Your task to perform on an android device: Open Amazon Image 0: 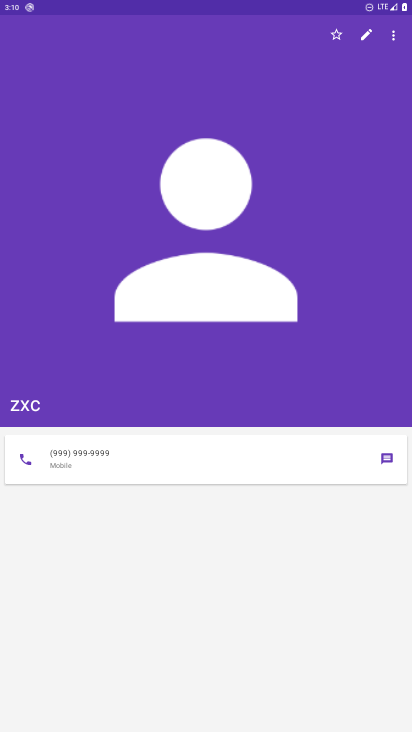
Step 0: press home button
Your task to perform on an android device: Open Amazon Image 1: 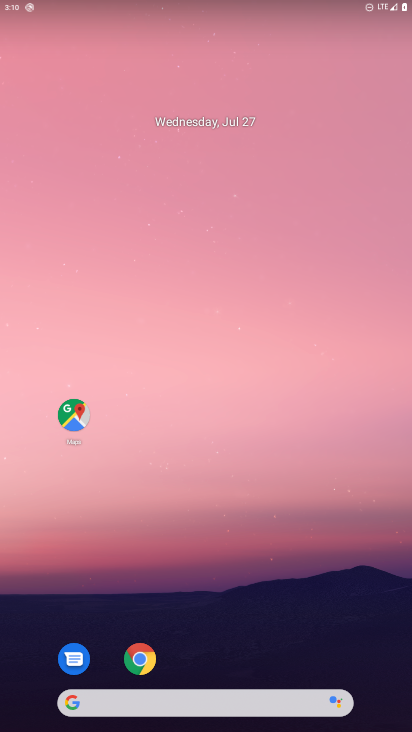
Step 1: drag from (287, 616) to (279, 197)
Your task to perform on an android device: Open Amazon Image 2: 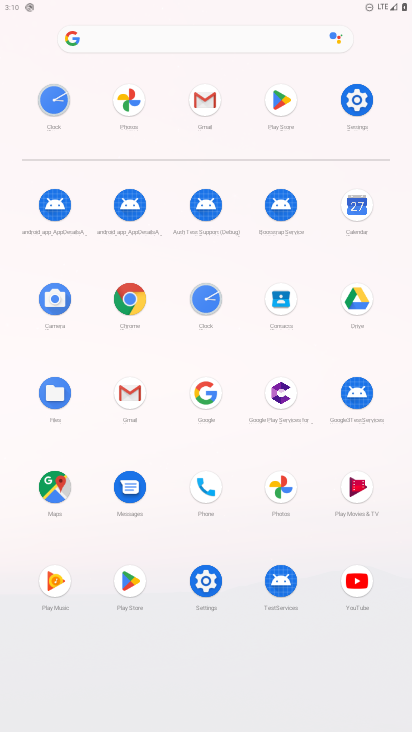
Step 2: click (133, 313)
Your task to perform on an android device: Open Amazon Image 3: 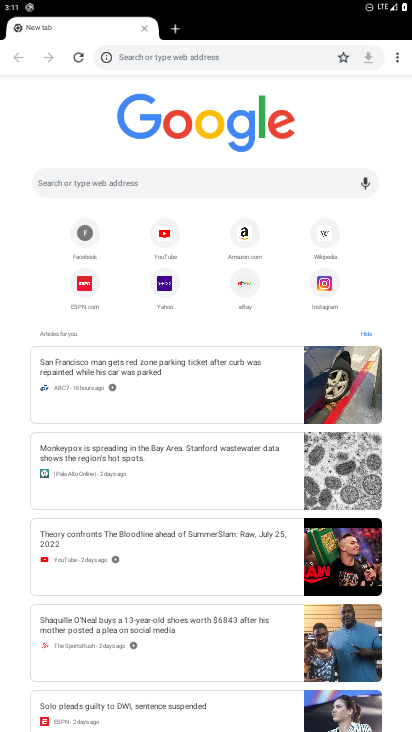
Step 3: click (205, 54)
Your task to perform on an android device: Open Amazon Image 4: 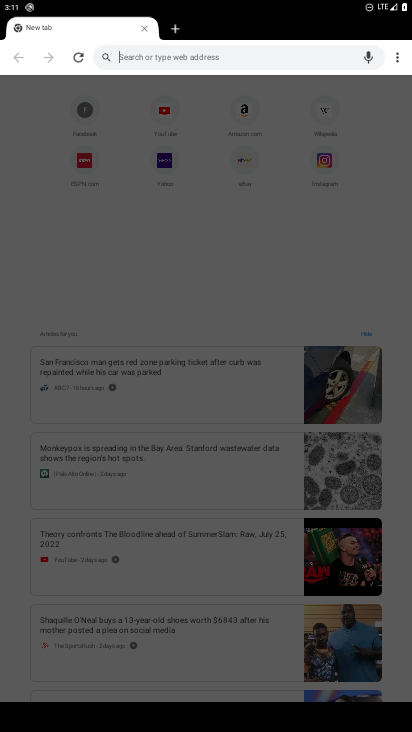
Step 4: type "amazon"
Your task to perform on an android device: Open Amazon Image 5: 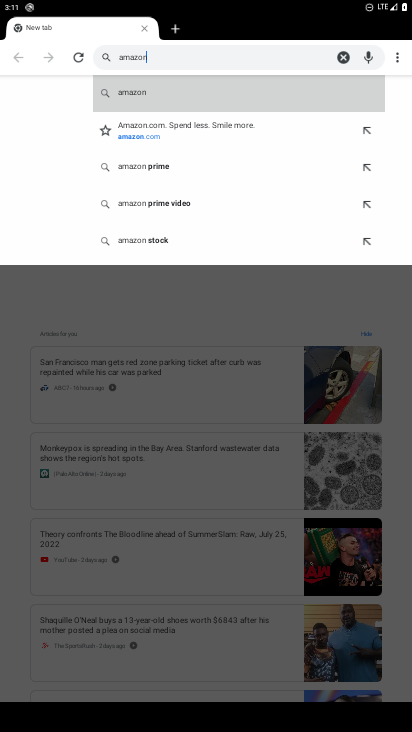
Step 5: click (221, 96)
Your task to perform on an android device: Open Amazon Image 6: 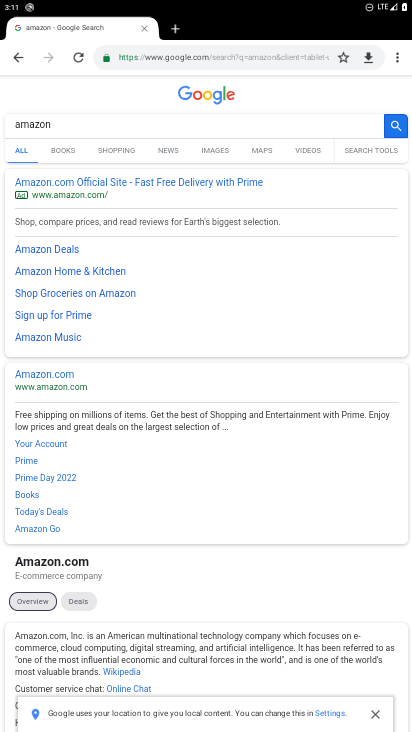
Step 6: click (216, 182)
Your task to perform on an android device: Open Amazon Image 7: 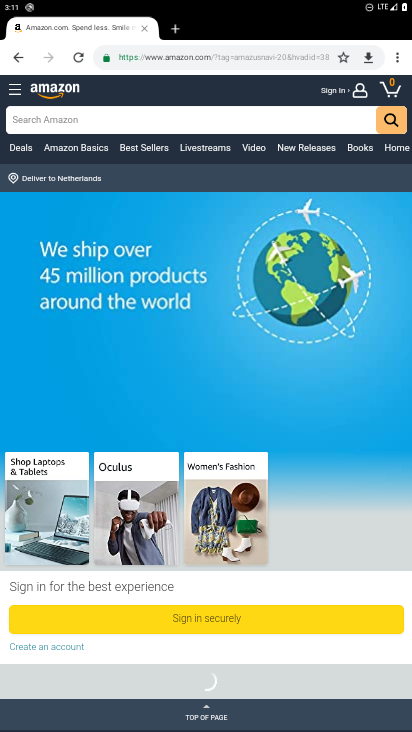
Step 7: click (37, 183)
Your task to perform on an android device: Open Amazon Image 8: 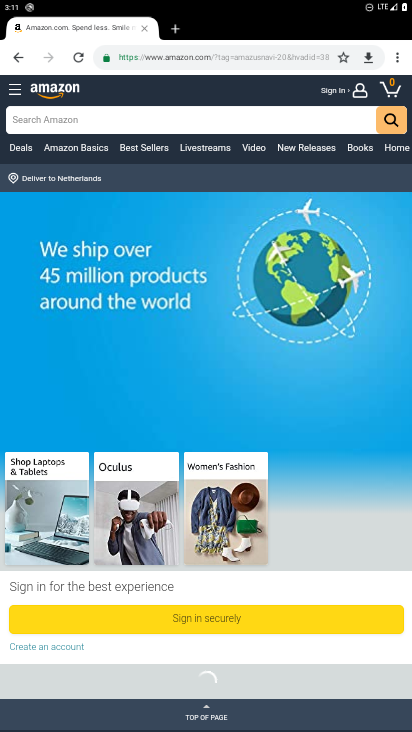
Step 8: click (27, 178)
Your task to perform on an android device: Open Amazon Image 9: 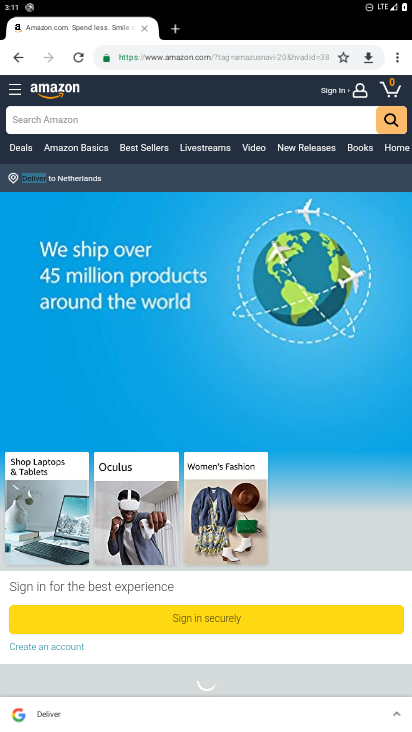
Step 9: click (10, 180)
Your task to perform on an android device: Open Amazon Image 10: 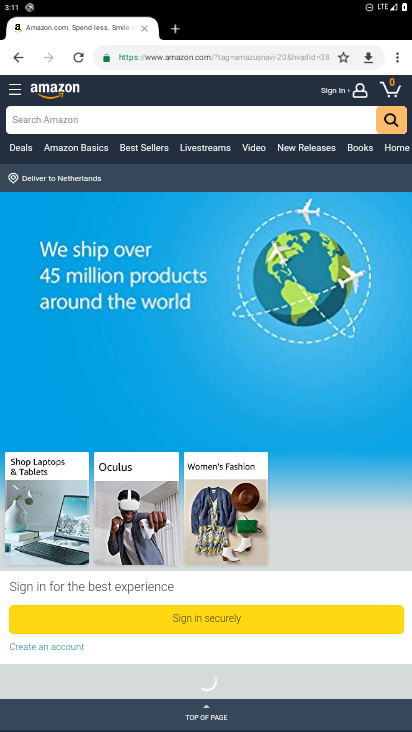
Step 10: click (75, 175)
Your task to perform on an android device: Open Amazon Image 11: 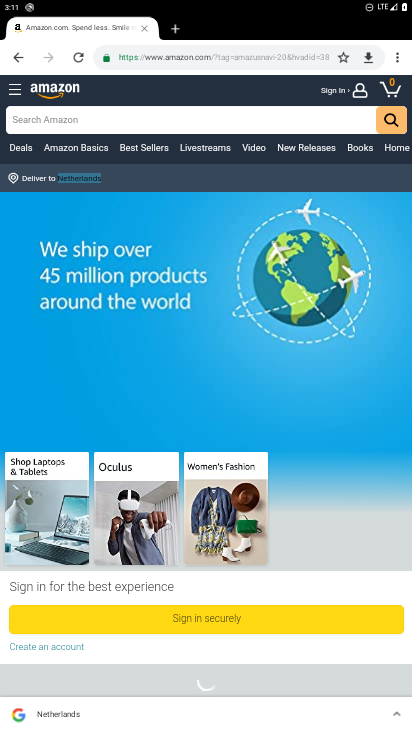
Step 11: click (163, 180)
Your task to perform on an android device: Open Amazon Image 12: 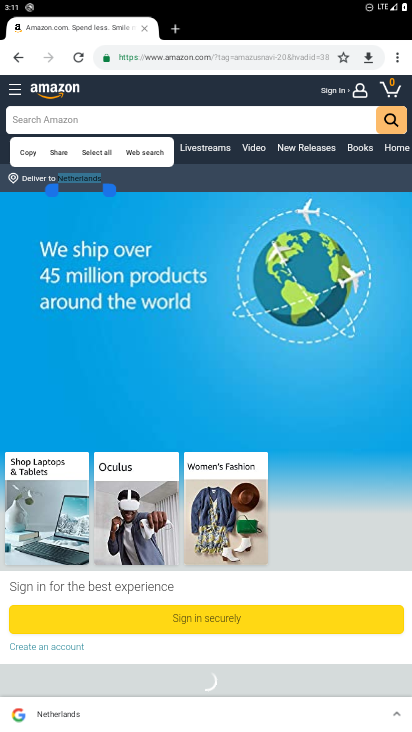
Step 12: click (159, 194)
Your task to perform on an android device: Open Amazon Image 13: 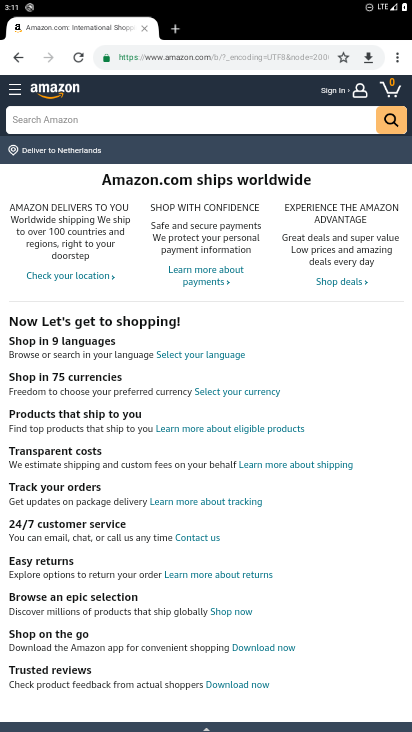
Step 13: click (45, 86)
Your task to perform on an android device: Open Amazon Image 14: 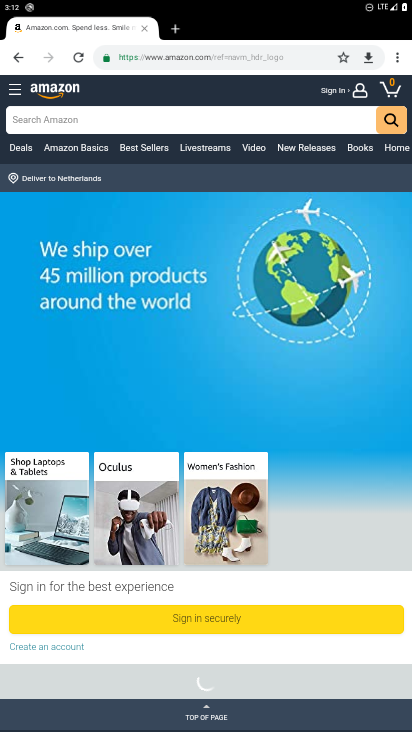
Step 14: click (15, 175)
Your task to perform on an android device: Open Amazon Image 15: 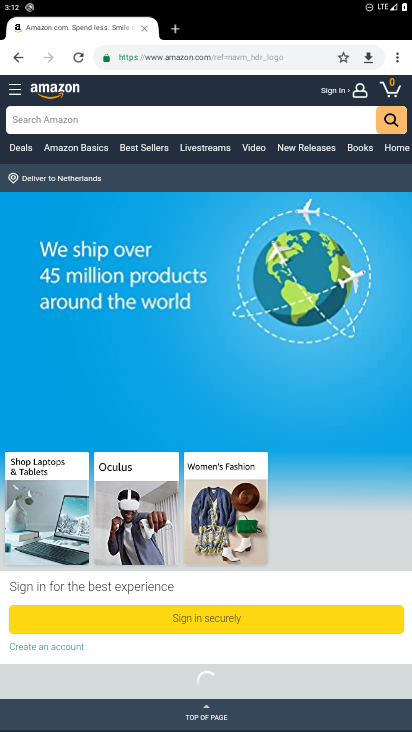
Step 15: drag from (141, 478) to (265, 148)
Your task to perform on an android device: Open Amazon Image 16: 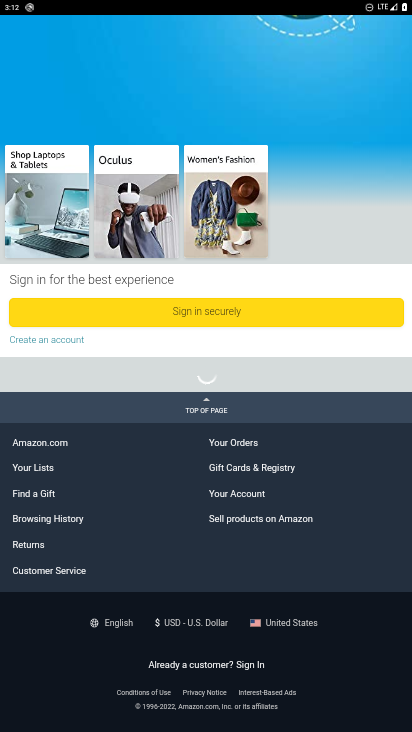
Step 16: drag from (250, 374) to (218, 601)
Your task to perform on an android device: Open Amazon Image 17: 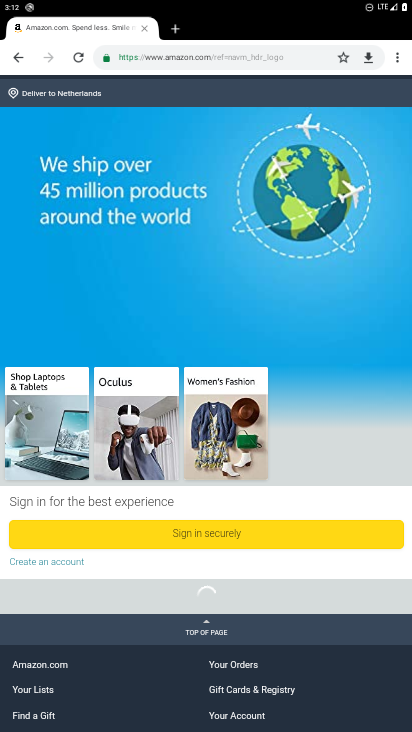
Step 17: click (34, 435)
Your task to perform on an android device: Open Amazon Image 18: 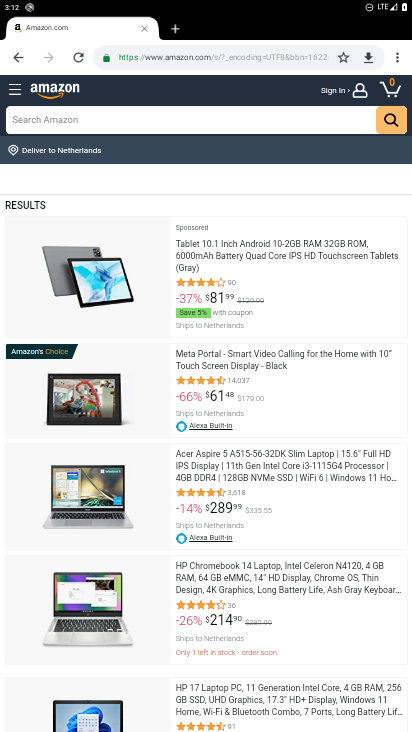
Step 18: click (62, 146)
Your task to perform on an android device: Open Amazon Image 19: 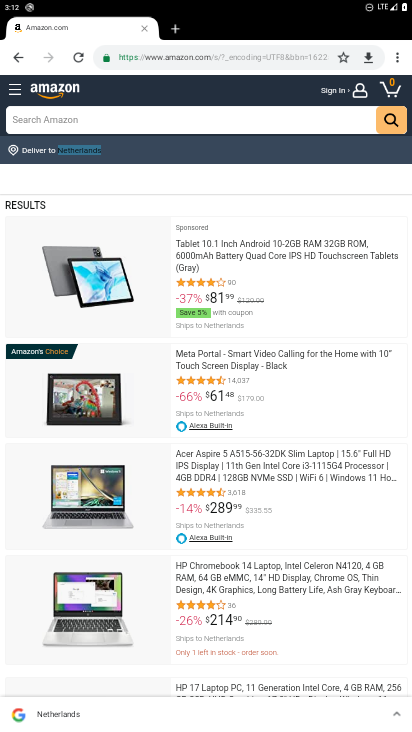
Step 19: click (22, 149)
Your task to perform on an android device: Open Amazon Image 20: 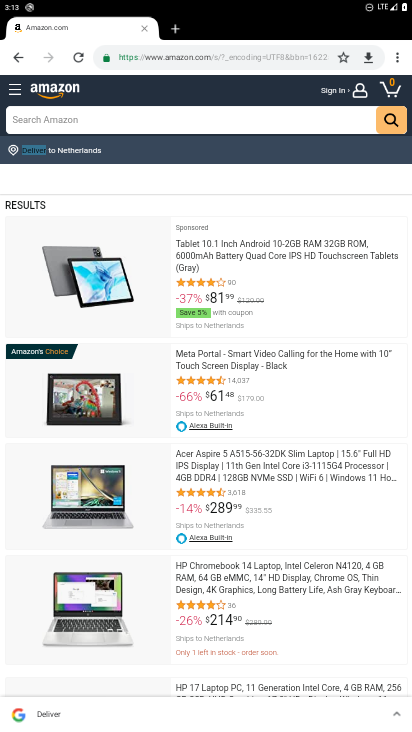
Step 20: click (14, 148)
Your task to perform on an android device: Open Amazon Image 21: 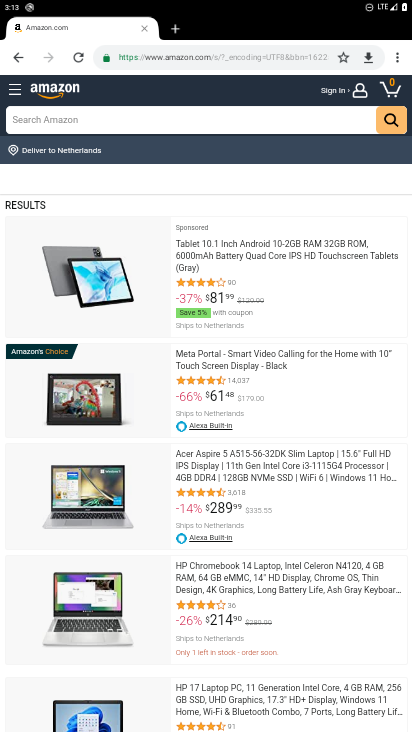
Step 21: task complete